Your task to perform on an android device: Show me recent news Image 0: 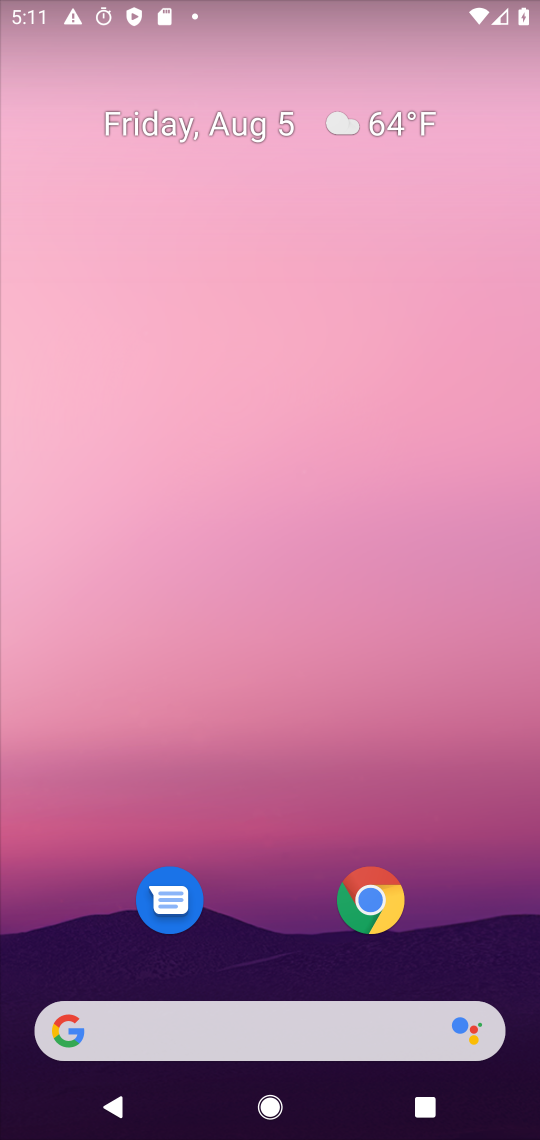
Step 0: drag from (264, 1025) to (230, 54)
Your task to perform on an android device: Show me recent news Image 1: 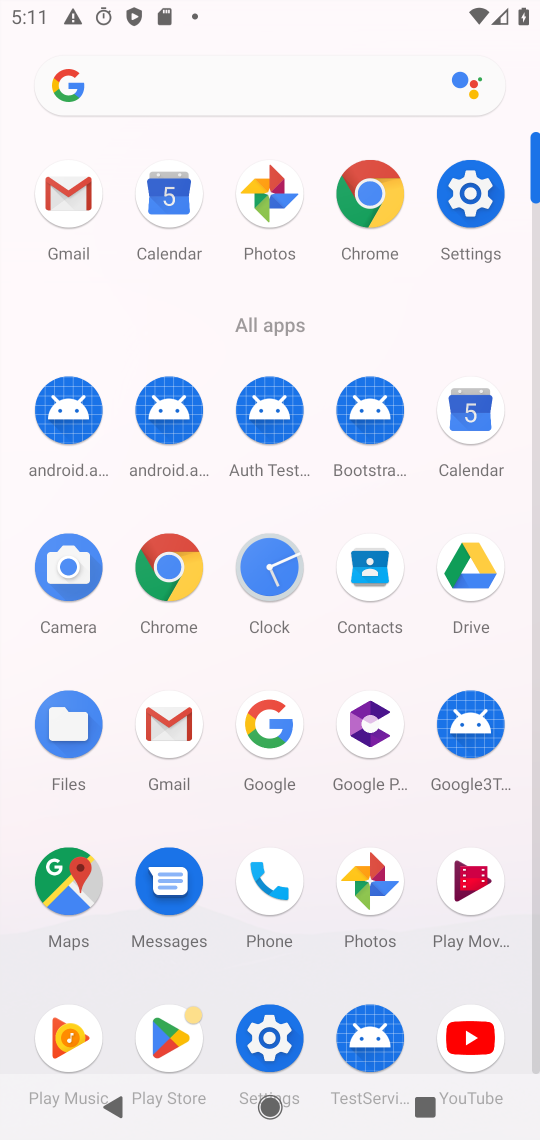
Step 1: click (159, 559)
Your task to perform on an android device: Show me recent news Image 2: 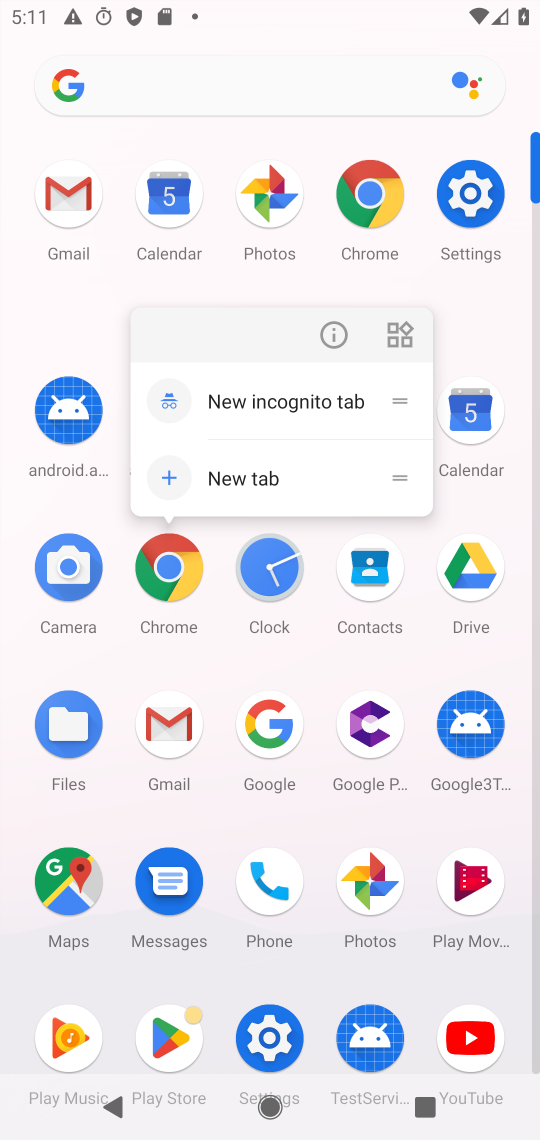
Step 2: click (154, 563)
Your task to perform on an android device: Show me recent news Image 3: 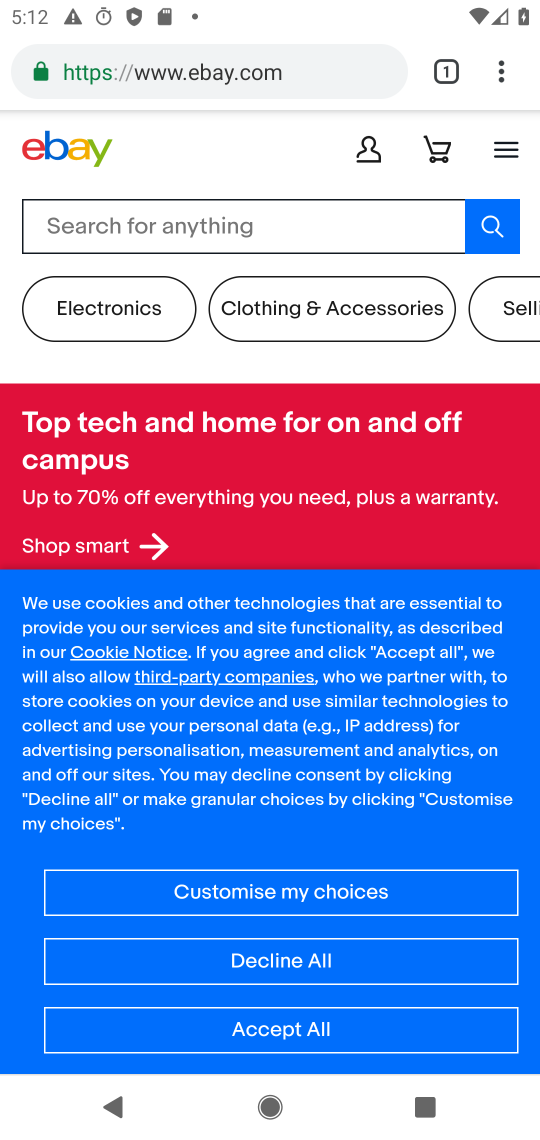
Step 3: click (216, 86)
Your task to perform on an android device: Show me recent news Image 4: 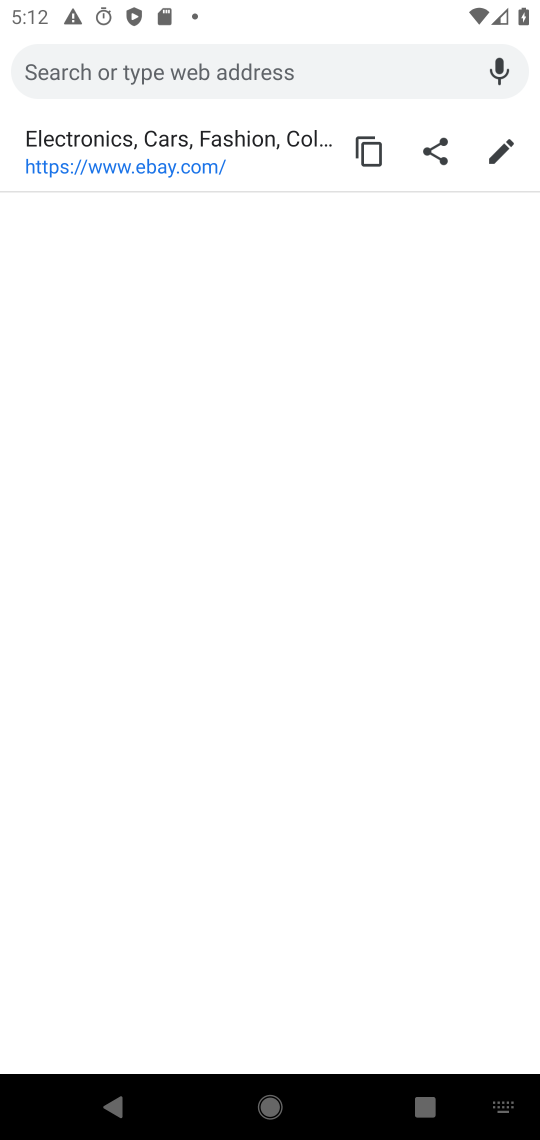
Step 4: type "recent news"
Your task to perform on an android device: Show me recent news Image 5: 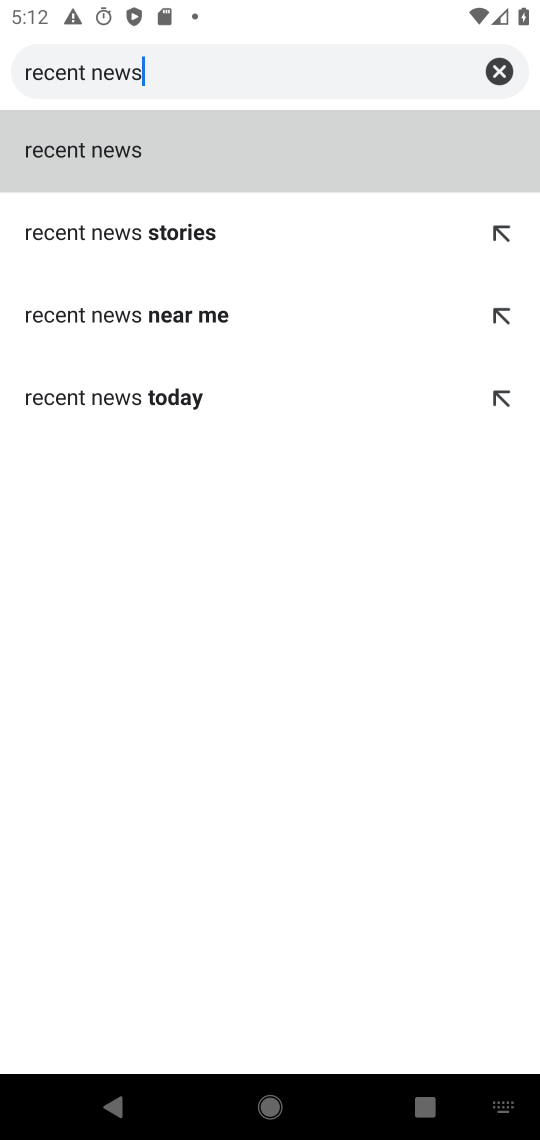
Step 5: click (141, 169)
Your task to perform on an android device: Show me recent news Image 6: 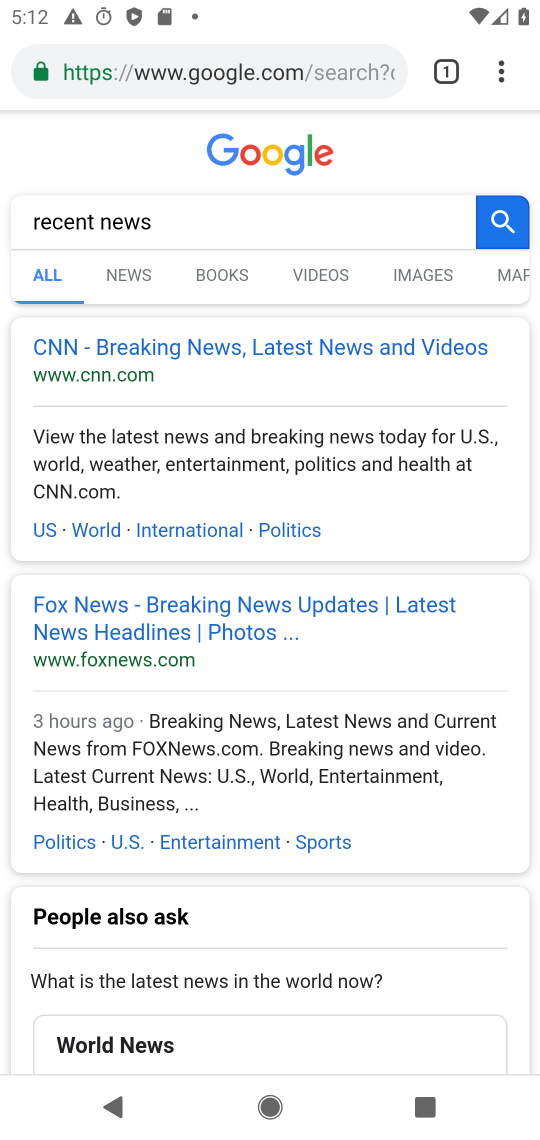
Step 6: task complete